Your task to perform on an android device: turn off javascript in the chrome app Image 0: 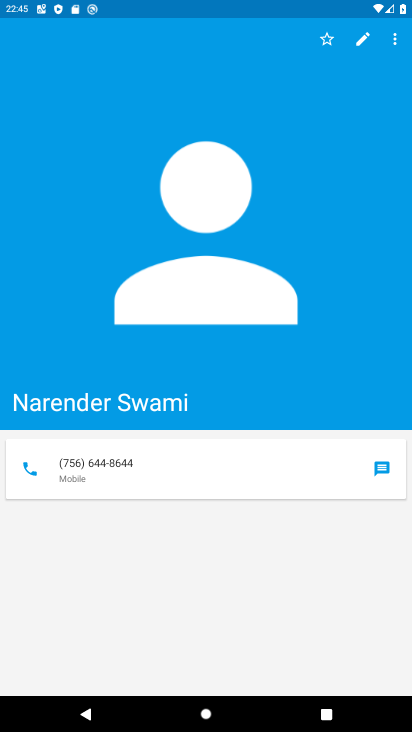
Step 0: press home button
Your task to perform on an android device: turn off javascript in the chrome app Image 1: 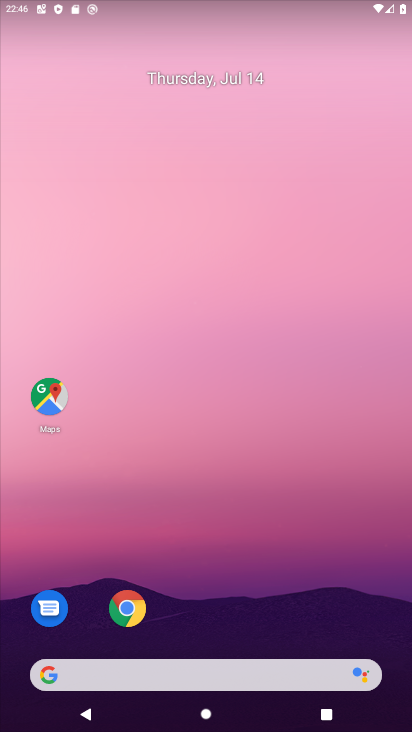
Step 1: click (142, 608)
Your task to perform on an android device: turn off javascript in the chrome app Image 2: 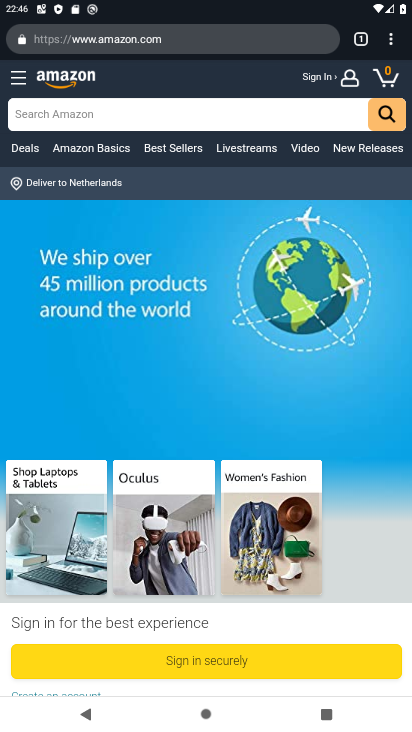
Step 2: click (390, 45)
Your task to perform on an android device: turn off javascript in the chrome app Image 3: 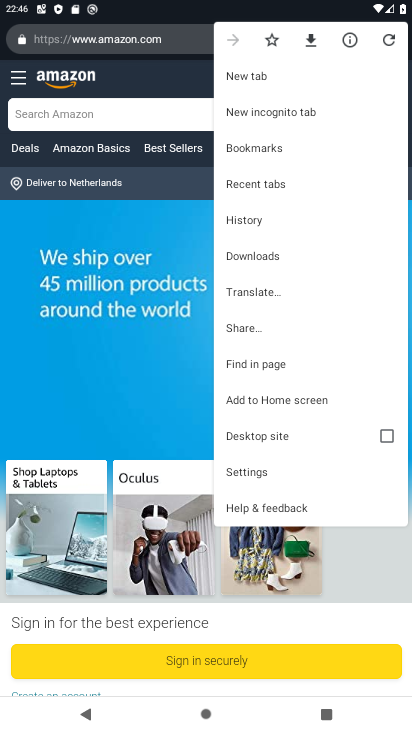
Step 3: click (238, 471)
Your task to perform on an android device: turn off javascript in the chrome app Image 4: 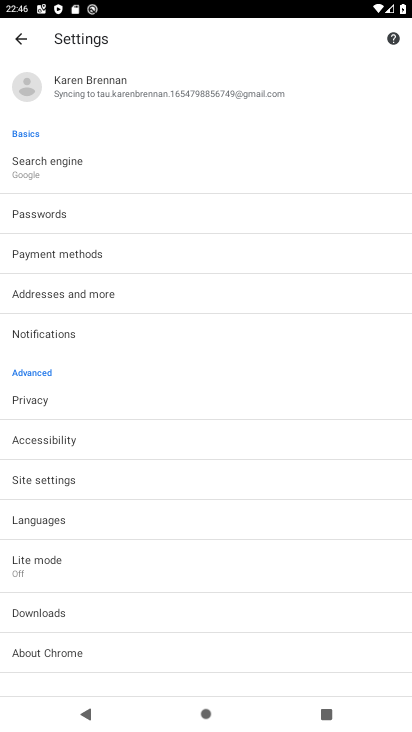
Step 4: click (61, 484)
Your task to perform on an android device: turn off javascript in the chrome app Image 5: 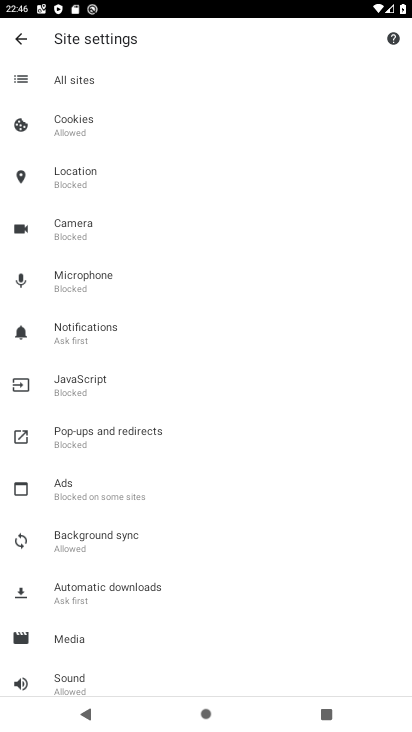
Step 5: click (85, 385)
Your task to perform on an android device: turn off javascript in the chrome app Image 6: 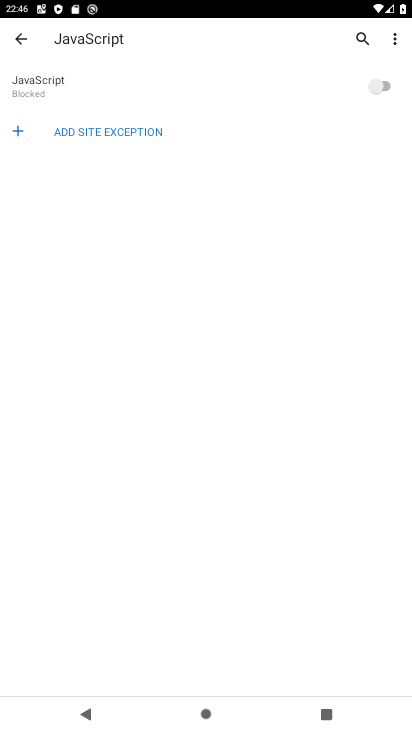
Step 6: task complete